Your task to perform on an android device: open device folders in google photos Image 0: 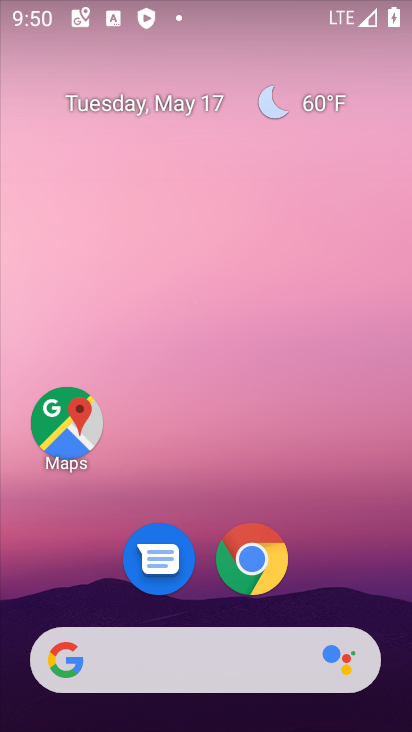
Step 0: drag from (200, 607) to (213, 169)
Your task to perform on an android device: open device folders in google photos Image 1: 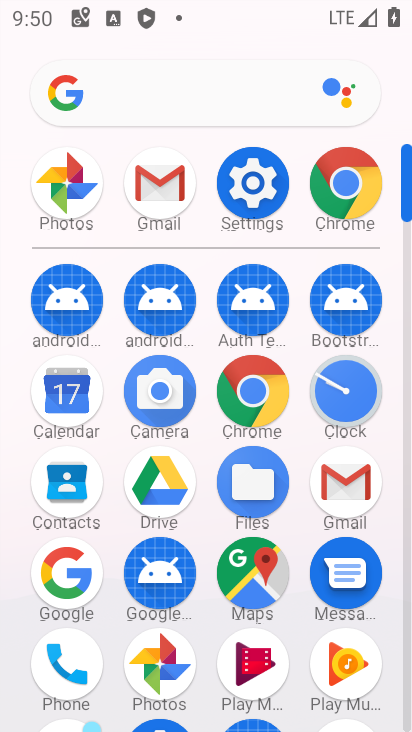
Step 1: click (94, 210)
Your task to perform on an android device: open device folders in google photos Image 2: 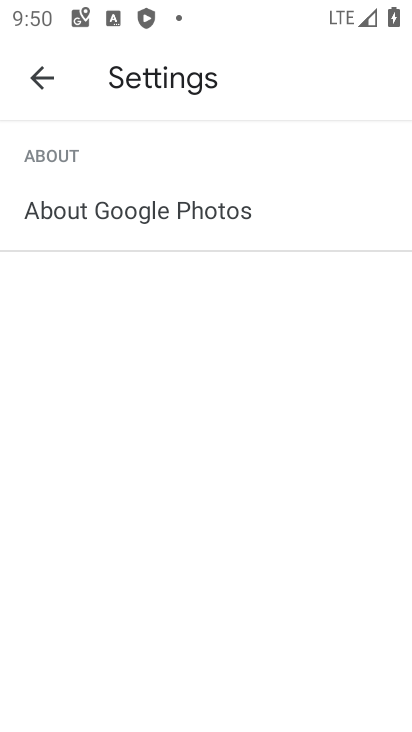
Step 2: click (33, 87)
Your task to perform on an android device: open device folders in google photos Image 3: 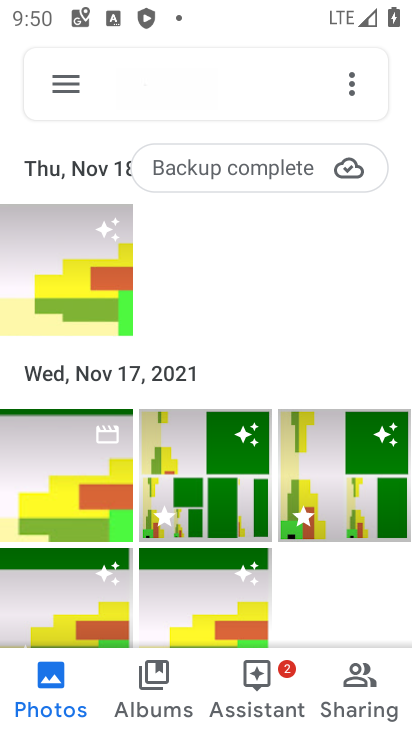
Step 3: click (75, 78)
Your task to perform on an android device: open device folders in google photos Image 4: 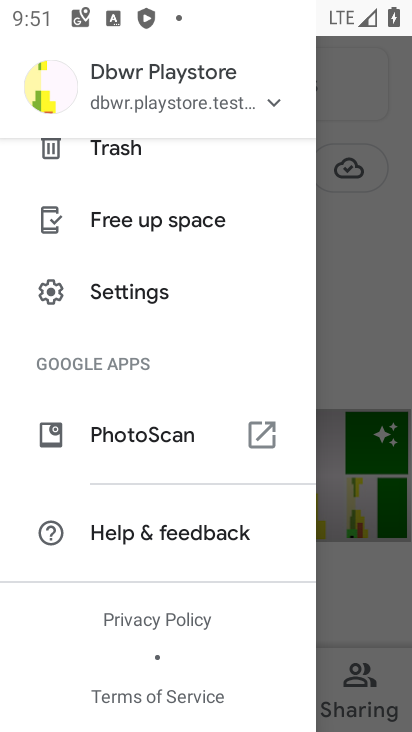
Step 4: drag from (140, 317) to (165, 551)
Your task to perform on an android device: open device folders in google photos Image 5: 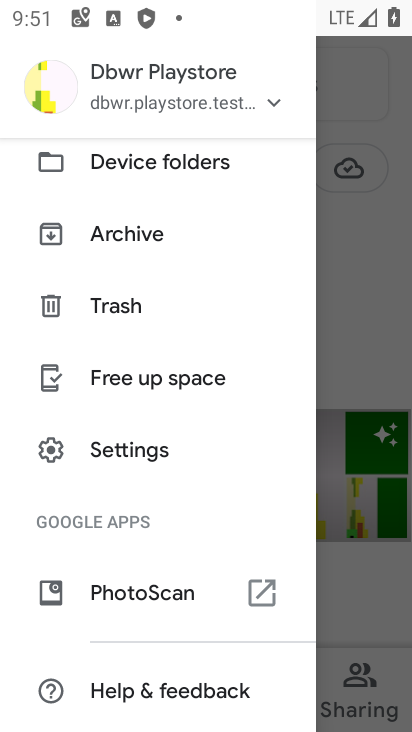
Step 5: click (125, 176)
Your task to perform on an android device: open device folders in google photos Image 6: 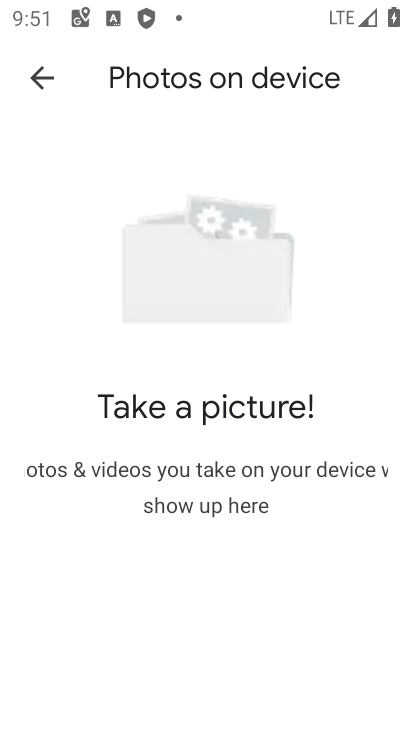
Step 6: task complete